Your task to perform on an android device: Open Chrome and go to the settings page Image 0: 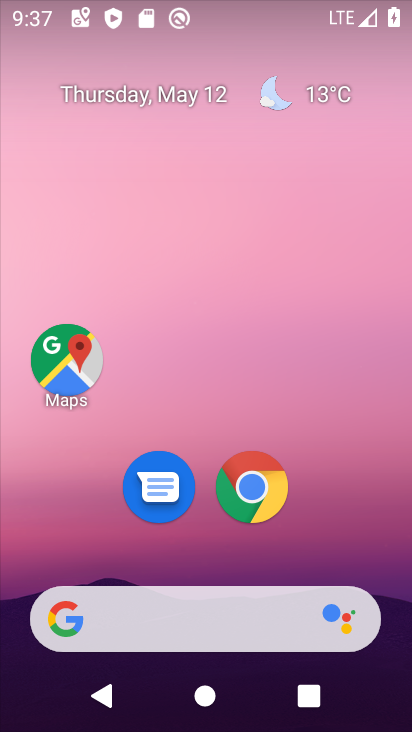
Step 0: click (252, 497)
Your task to perform on an android device: Open Chrome and go to the settings page Image 1: 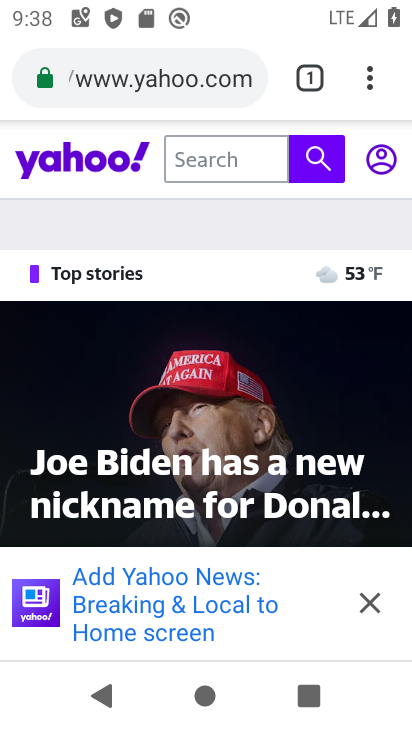
Step 1: click (369, 78)
Your task to perform on an android device: Open Chrome and go to the settings page Image 2: 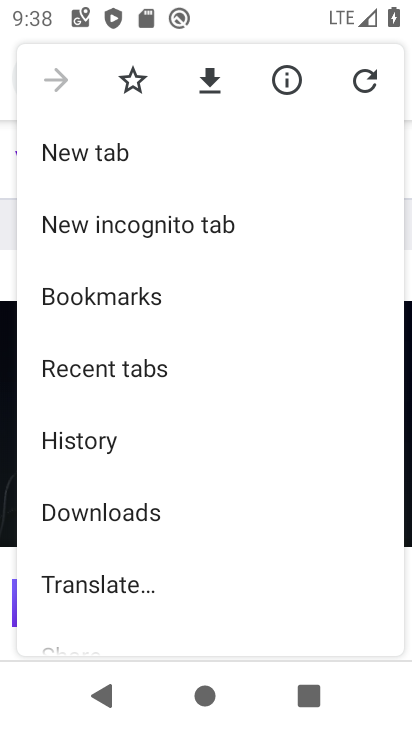
Step 2: drag from (147, 531) to (148, 104)
Your task to perform on an android device: Open Chrome and go to the settings page Image 3: 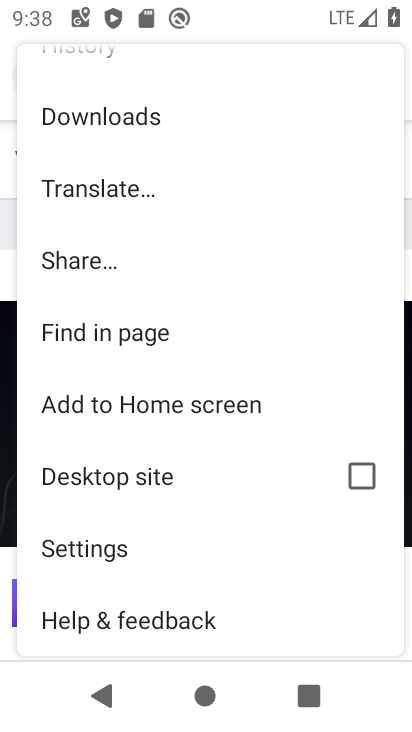
Step 3: click (82, 546)
Your task to perform on an android device: Open Chrome and go to the settings page Image 4: 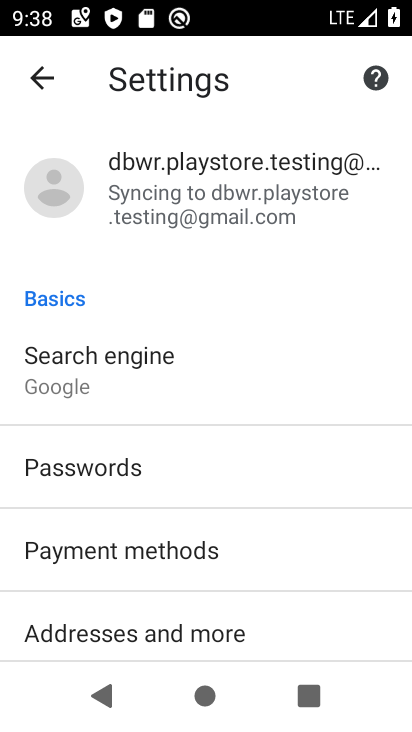
Step 4: task complete